Your task to perform on an android device: Open the phone app and click the voicemail tab. Image 0: 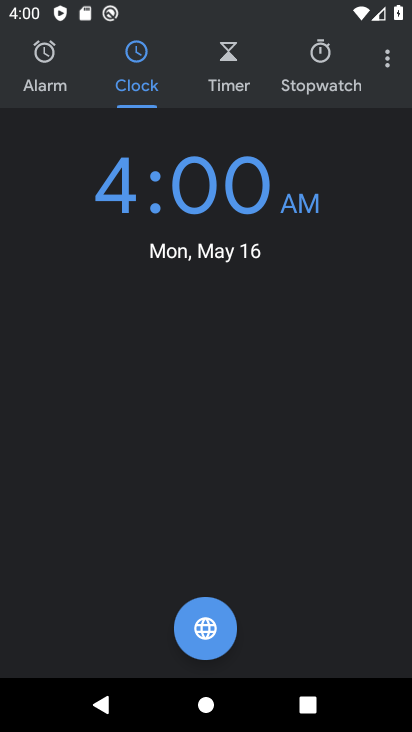
Step 0: press home button
Your task to perform on an android device: Open the phone app and click the voicemail tab. Image 1: 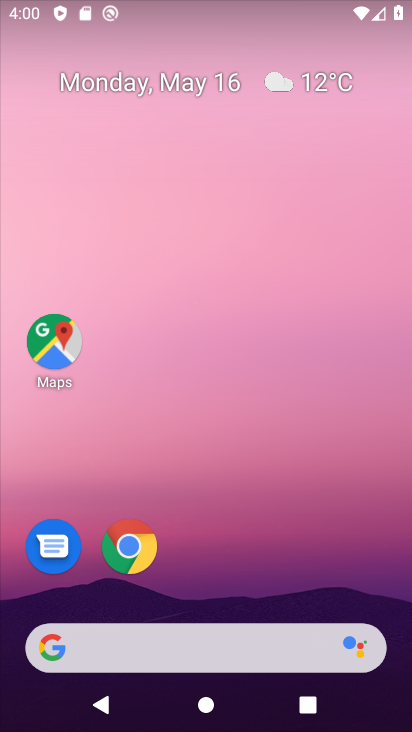
Step 1: drag from (249, 596) to (401, 27)
Your task to perform on an android device: Open the phone app and click the voicemail tab. Image 2: 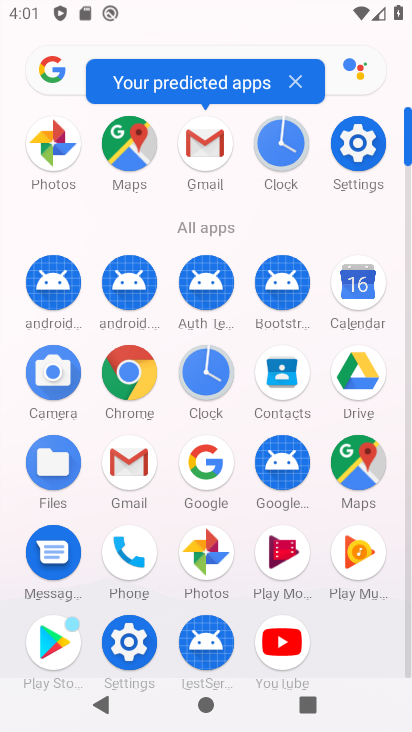
Step 2: click (126, 539)
Your task to perform on an android device: Open the phone app and click the voicemail tab. Image 3: 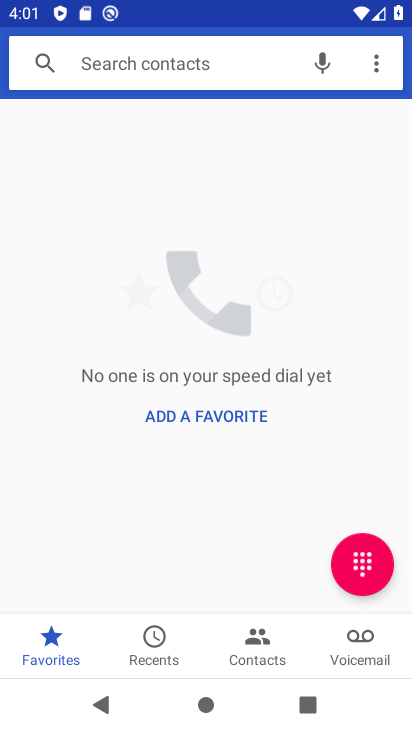
Step 3: click (392, 653)
Your task to perform on an android device: Open the phone app and click the voicemail tab. Image 4: 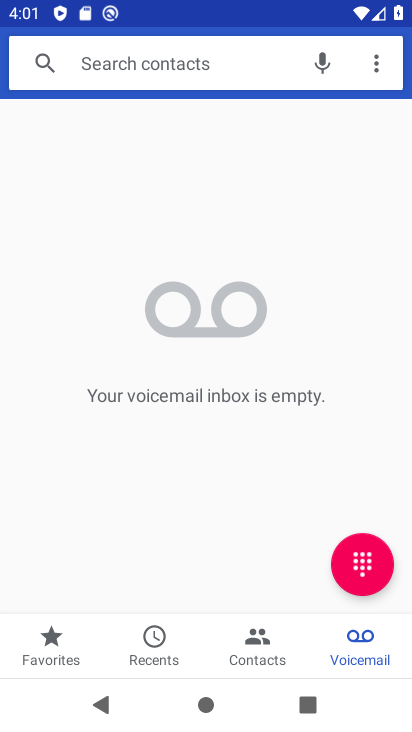
Step 4: task complete